Your task to perform on an android device: Check the weather Image 0: 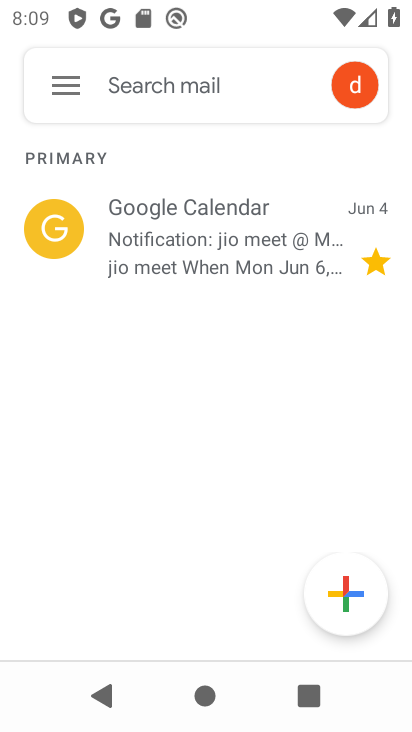
Step 0: press back button
Your task to perform on an android device: Check the weather Image 1: 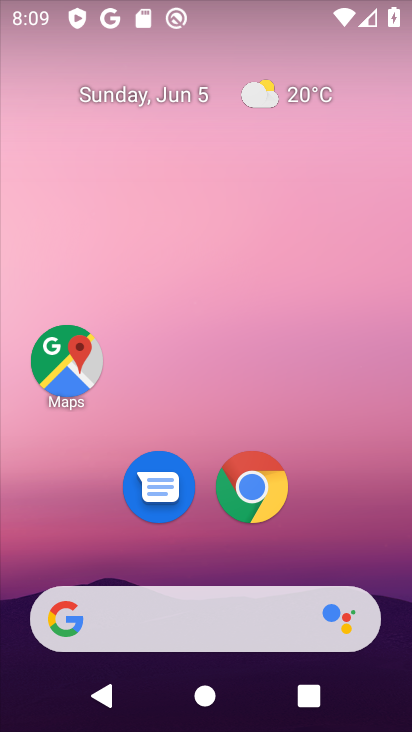
Step 1: click (273, 75)
Your task to perform on an android device: Check the weather Image 2: 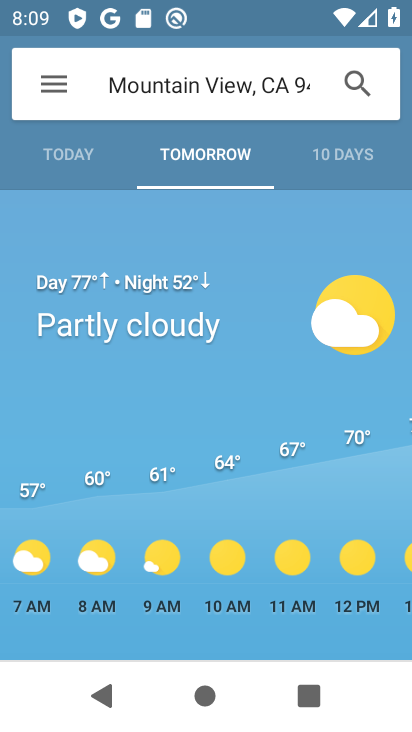
Step 2: click (52, 156)
Your task to perform on an android device: Check the weather Image 3: 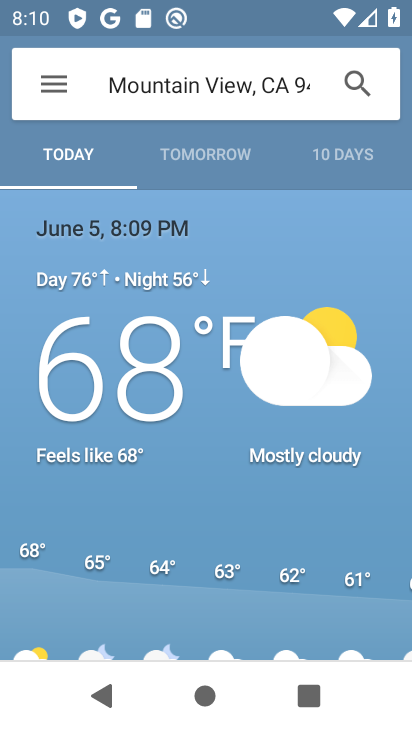
Step 3: task complete